Your task to perform on an android device: Find coffee shops on Maps Image 0: 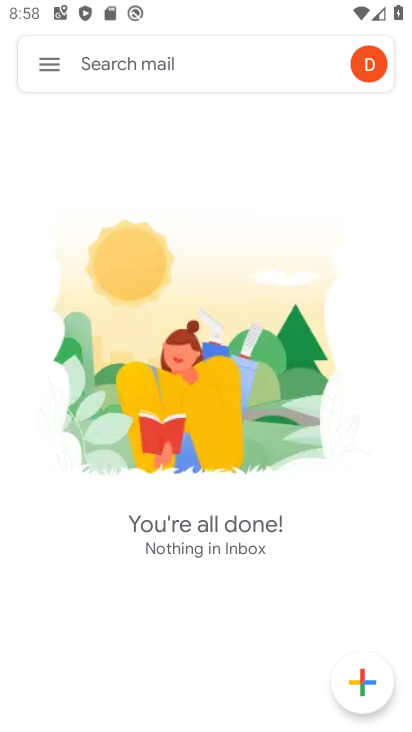
Step 0: press home button
Your task to perform on an android device: Find coffee shops on Maps Image 1: 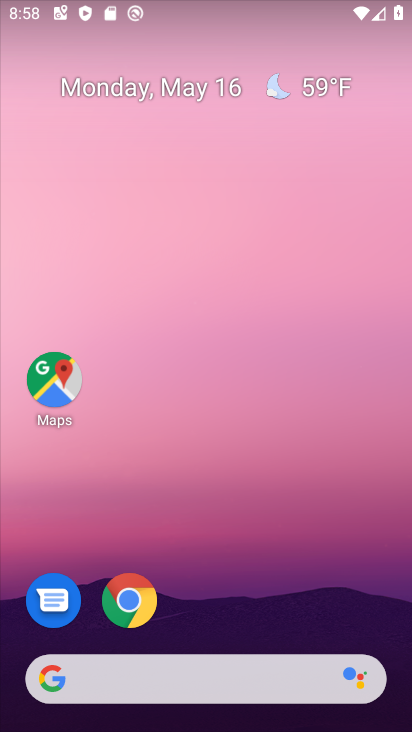
Step 1: click (59, 381)
Your task to perform on an android device: Find coffee shops on Maps Image 2: 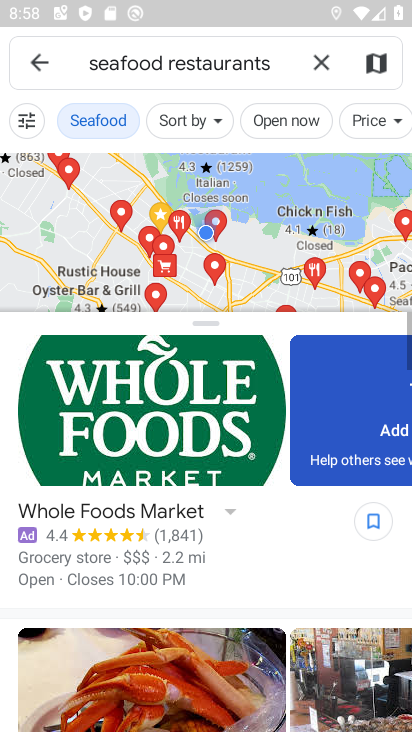
Step 2: click (323, 59)
Your task to perform on an android device: Find coffee shops on Maps Image 3: 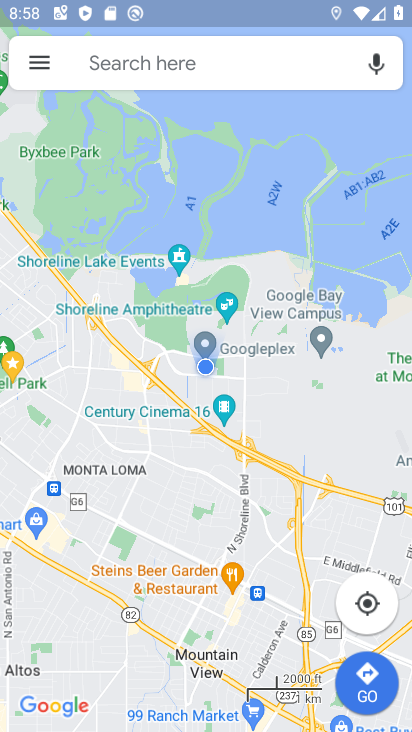
Step 3: click (187, 61)
Your task to perform on an android device: Find coffee shops on Maps Image 4: 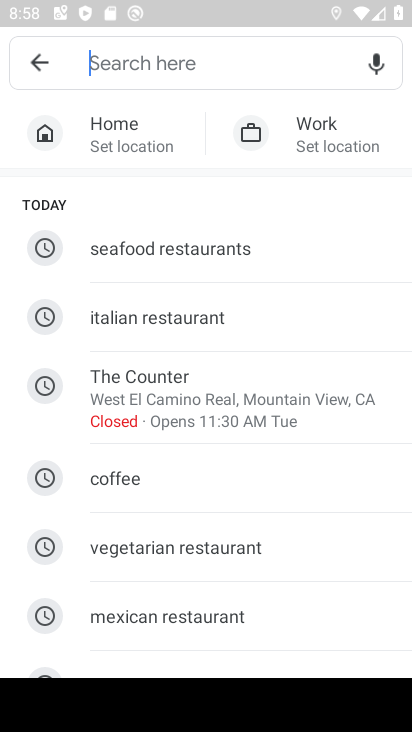
Step 4: click (119, 483)
Your task to perform on an android device: Find coffee shops on Maps Image 5: 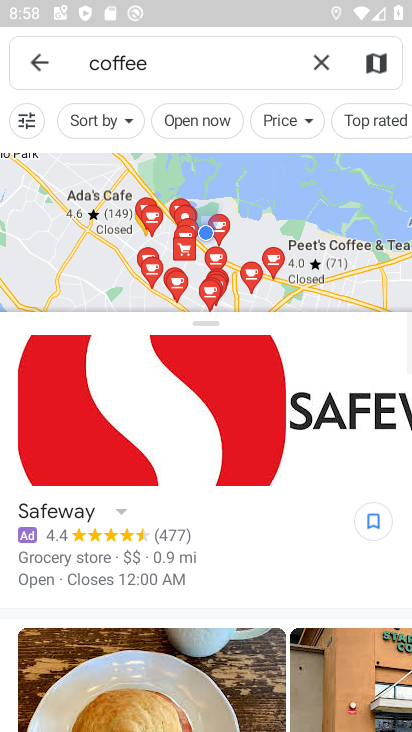
Step 5: task complete